Your task to perform on an android device: open app "Messenger Lite" (install if not already installed), go to login, and select forgot password Image 0: 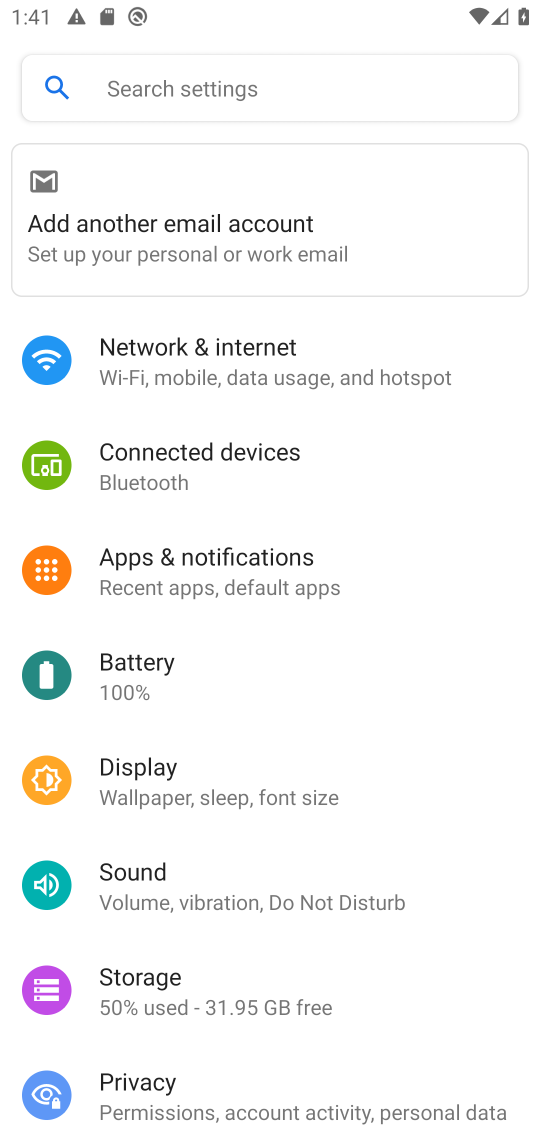
Step 0: press home button
Your task to perform on an android device: open app "Messenger Lite" (install if not already installed), go to login, and select forgot password Image 1: 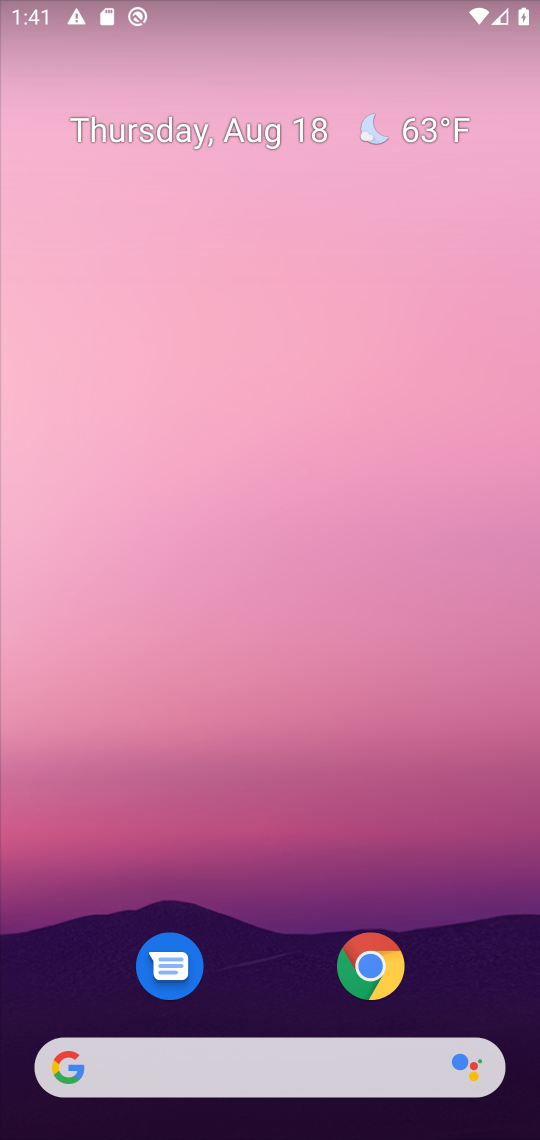
Step 1: drag from (276, 992) to (379, 18)
Your task to perform on an android device: open app "Messenger Lite" (install if not already installed), go to login, and select forgot password Image 2: 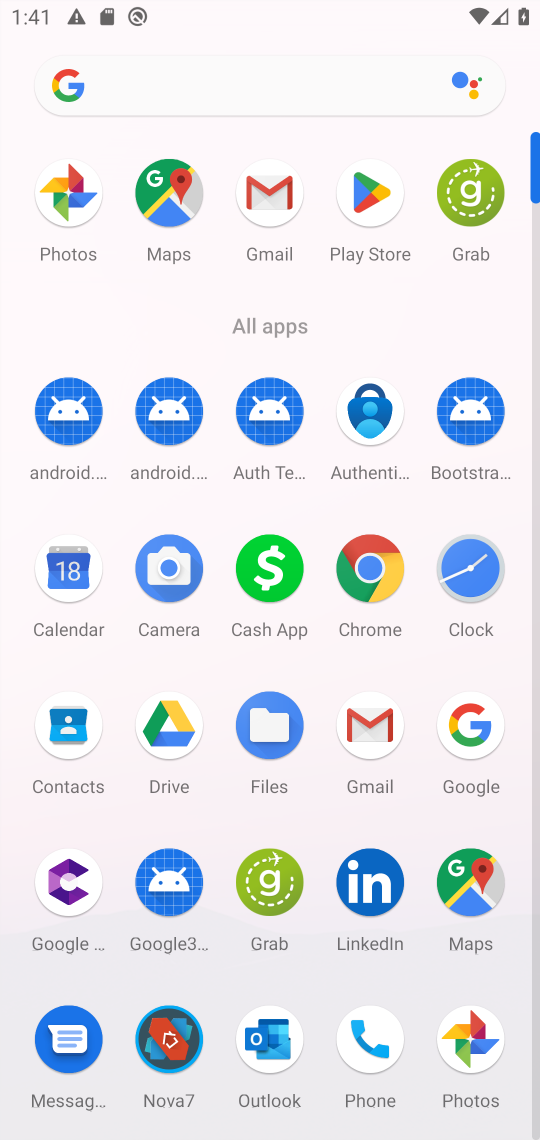
Step 2: click (368, 185)
Your task to perform on an android device: open app "Messenger Lite" (install if not already installed), go to login, and select forgot password Image 3: 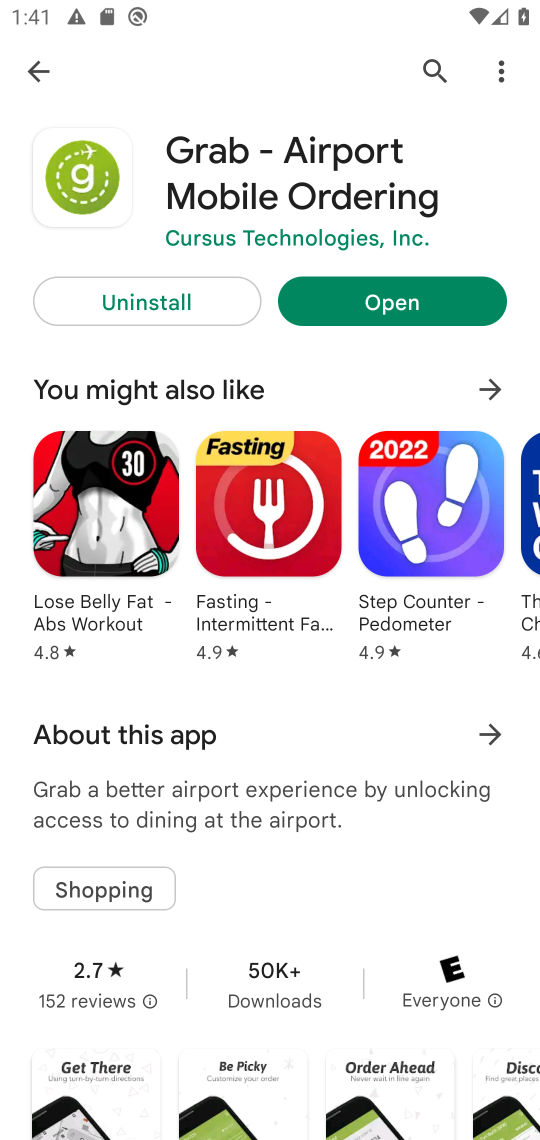
Step 3: click (37, 67)
Your task to perform on an android device: open app "Messenger Lite" (install if not already installed), go to login, and select forgot password Image 4: 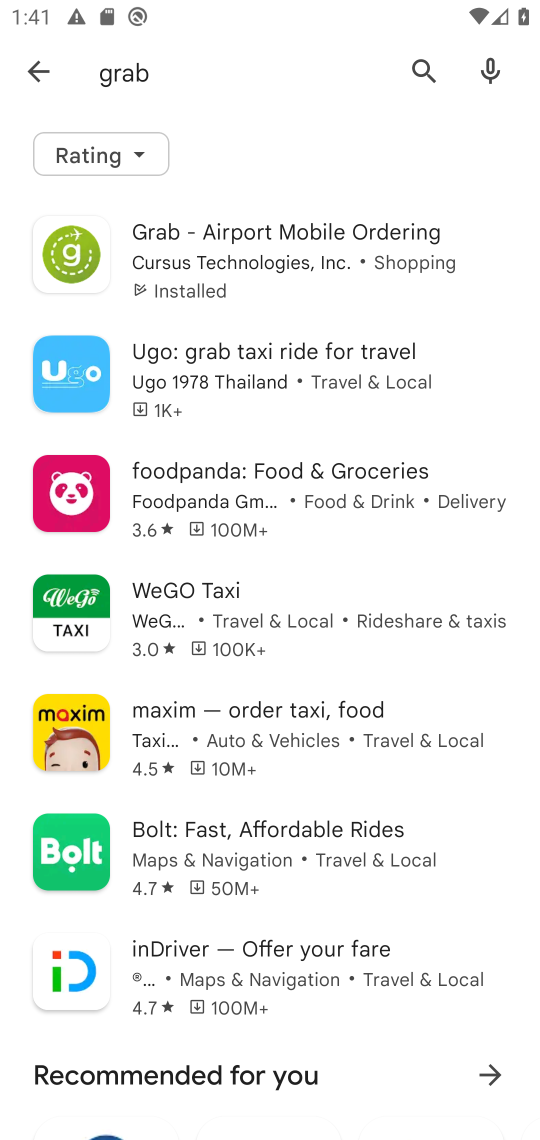
Step 4: click (417, 76)
Your task to perform on an android device: open app "Messenger Lite" (install if not already installed), go to login, and select forgot password Image 5: 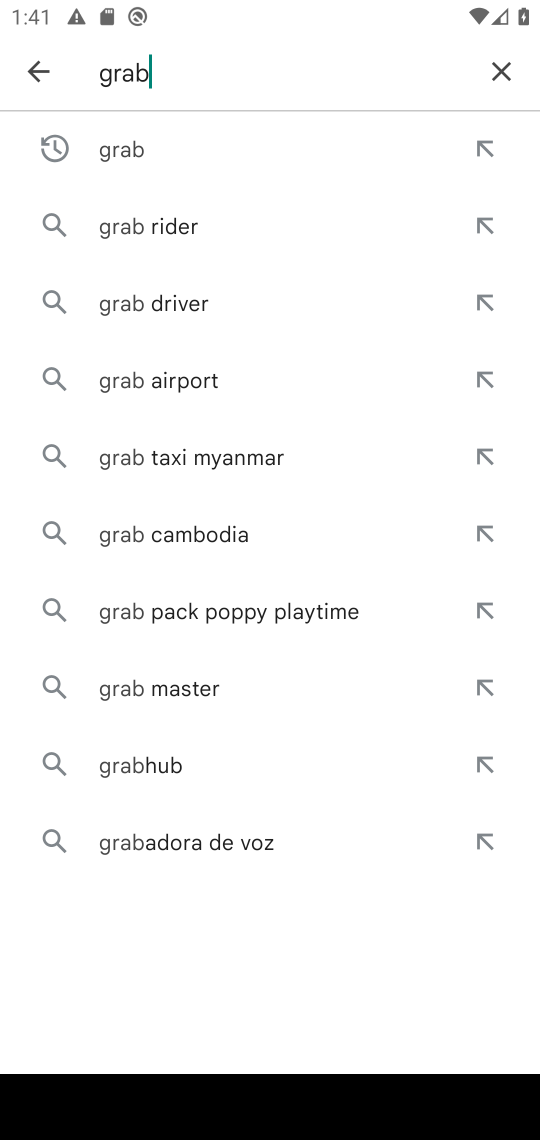
Step 5: click (506, 72)
Your task to perform on an android device: open app "Messenger Lite" (install if not already installed), go to login, and select forgot password Image 6: 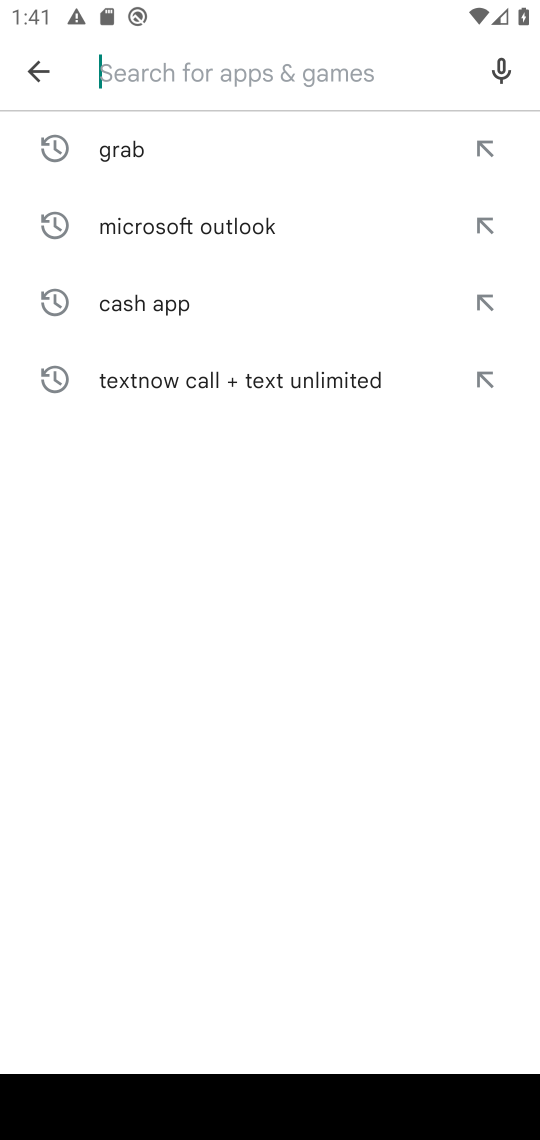
Step 6: type "Messenger Lite"
Your task to perform on an android device: open app "Messenger Lite" (install if not already installed), go to login, and select forgot password Image 7: 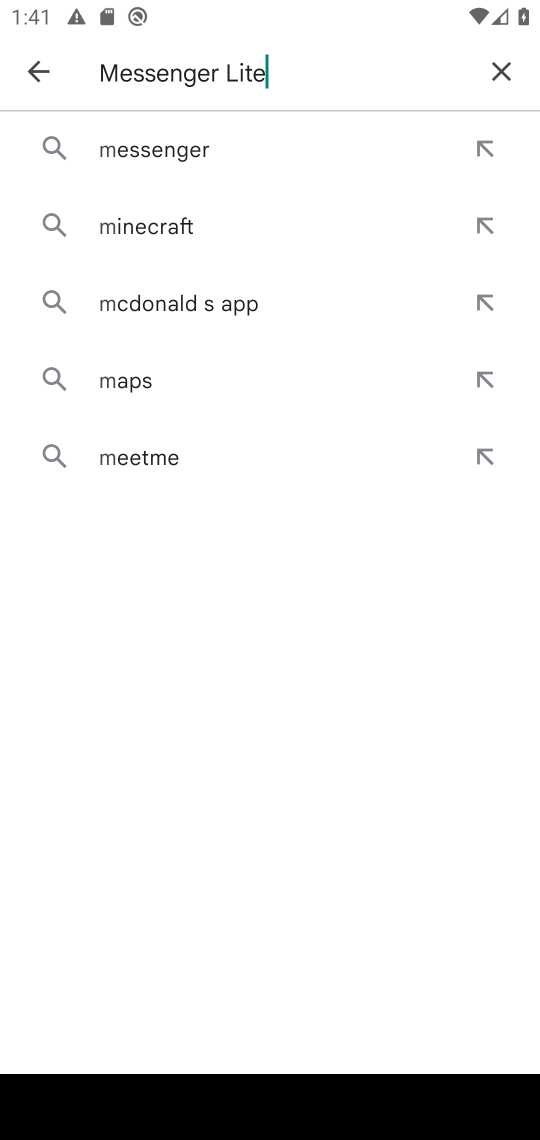
Step 7: type ""
Your task to perform on an android device: open app "Messenger Lite" (install if not already installed), go to login, and select forgot password Image 8: 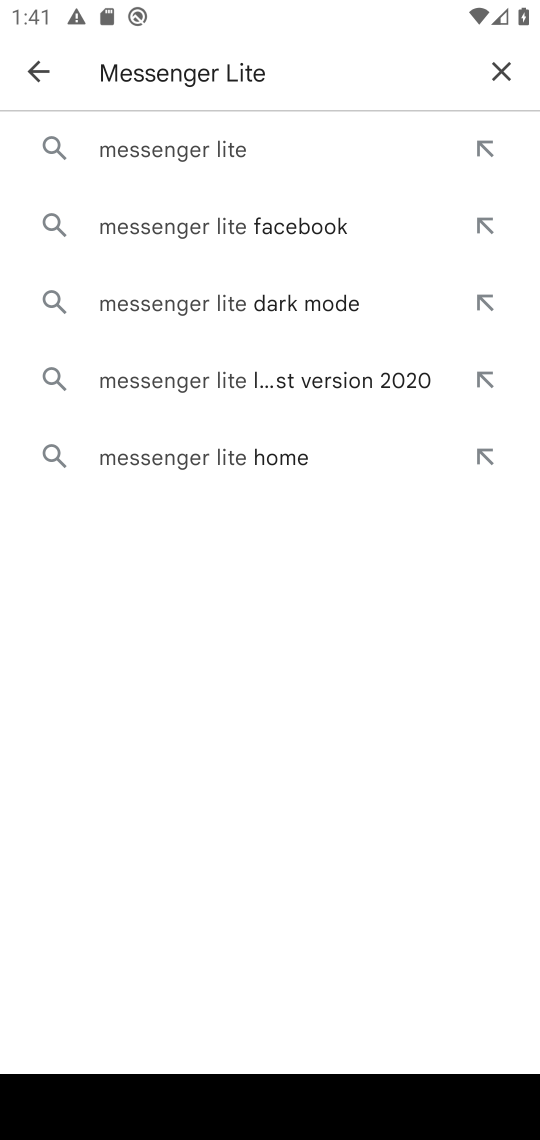
Step 8: click (271, 142)
Your task to perform on an android device: open app "Messenger Lite" (install if not already installed), go to login, and select forgot password Image 9: 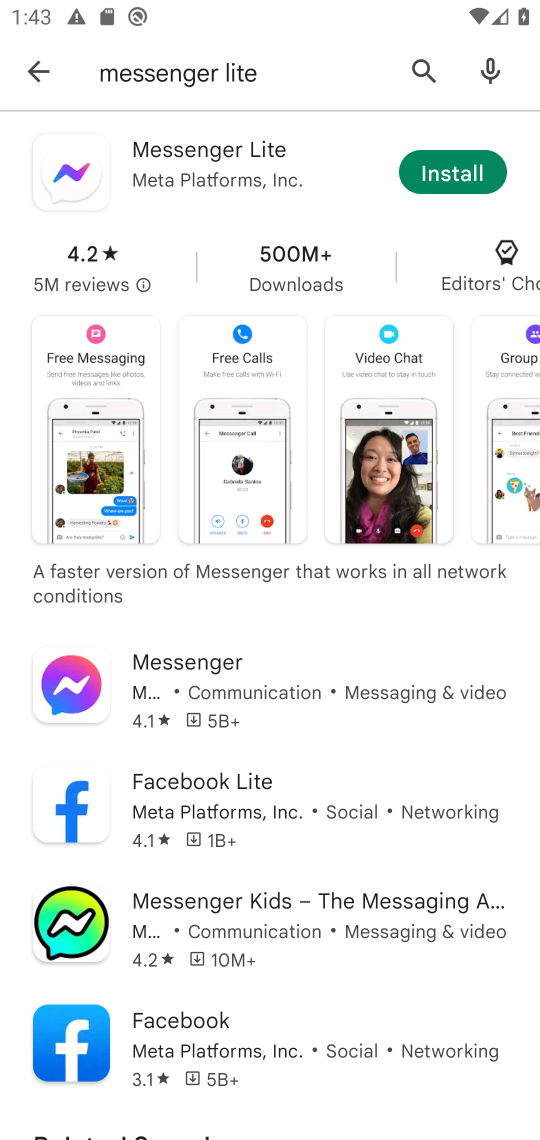
Step 9: click (465, 170)
Your task to perform on an android device: open app "Messenger Lite" (install if not already installed), go to login, and select forgot password Image 10: 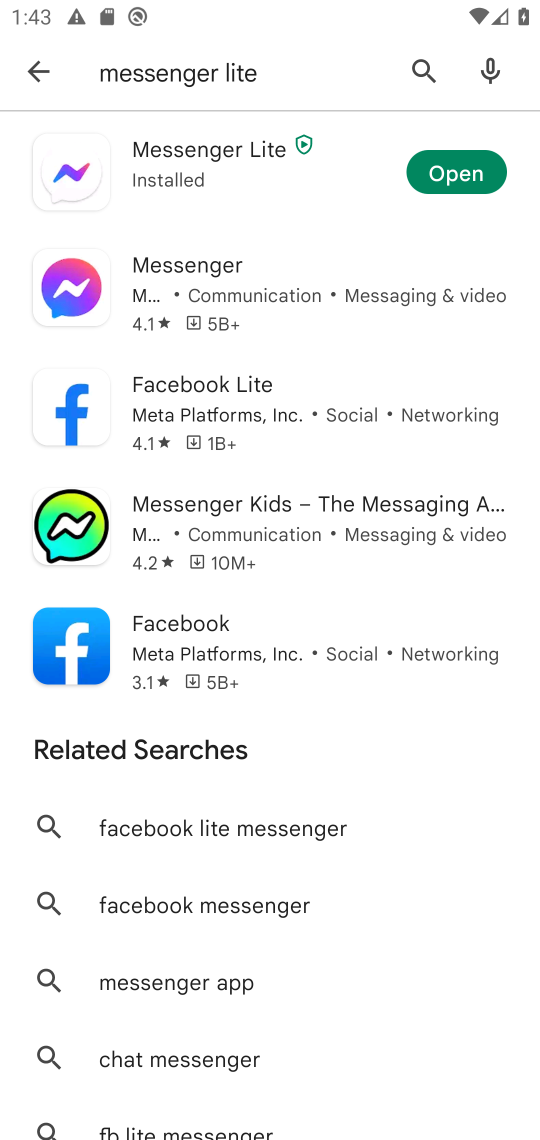
Step 10: click (452, 173)
Your task to perform on an android device: open app "Messenger Lite" (install if not already installed), go to login, and select forgot password Image 11: 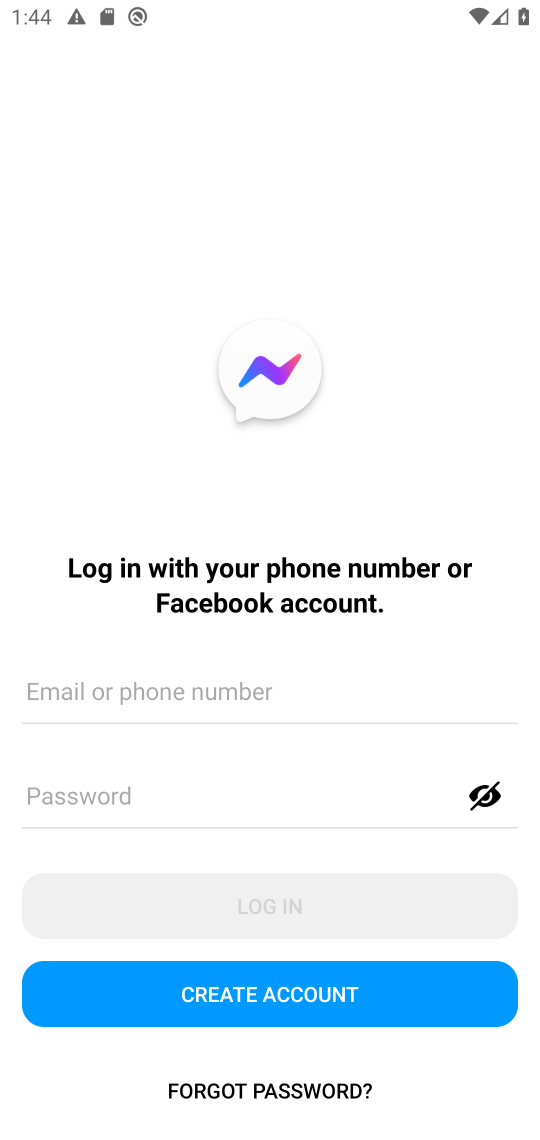
Step 11: click (278, 1093)
Your task to perform on an android device: open app "Messenger Lite" (install if not already installed), go to login, and select forgot password Image 12: 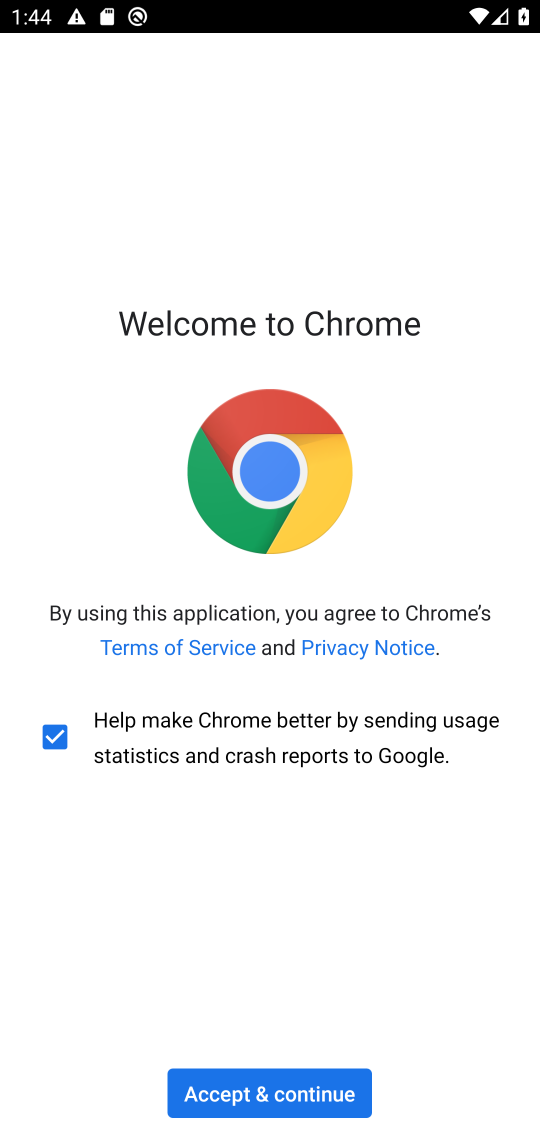
Step 12: task complete